Your task to perform on an android device: Go to CNN.com Image 0: 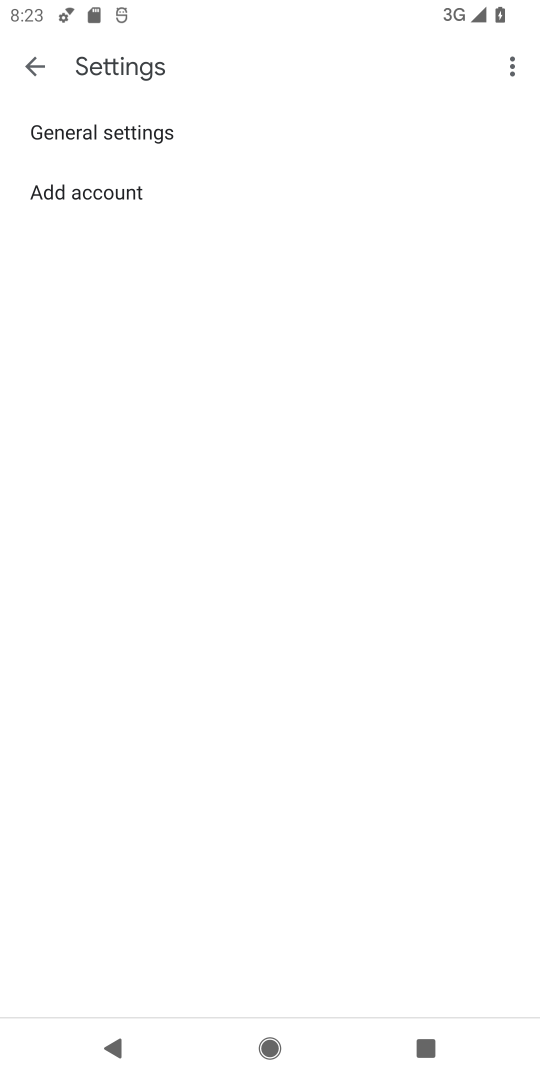
Step 0: press home button
Your task to perform on an android device: Go to CNN.com Image 1: 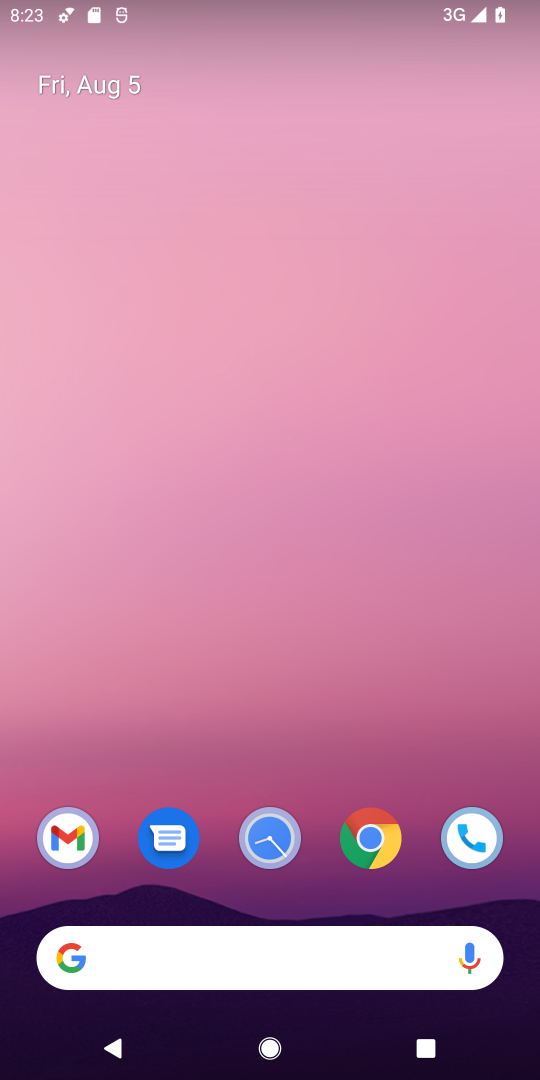
Step 1: click (350, 852)
Your task to perform on an android device: Go to CNN.com Image 2: 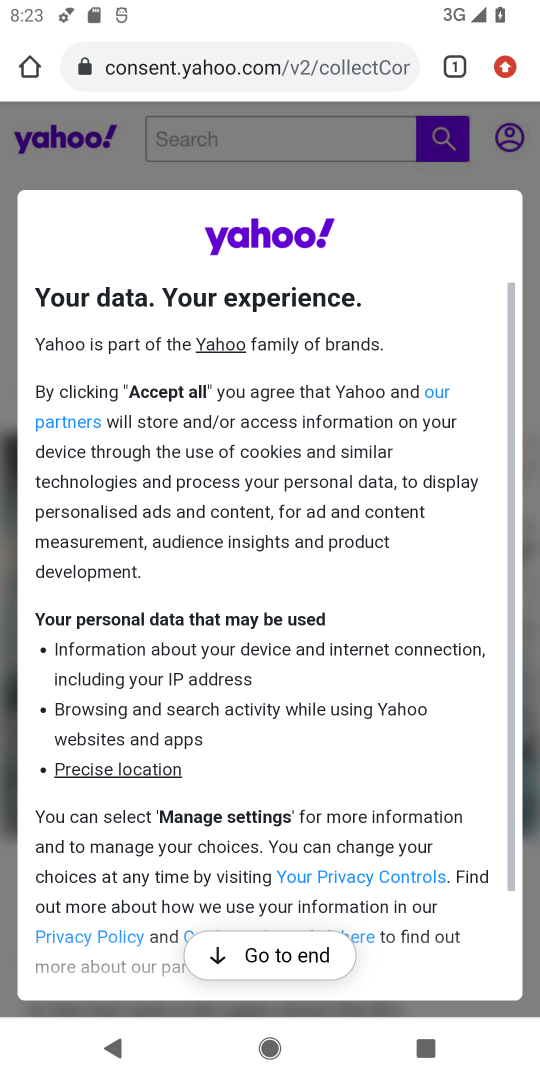
Step 2: click (446, 83)
Your task to perform on an android device: Go to CNN.com Image 3: 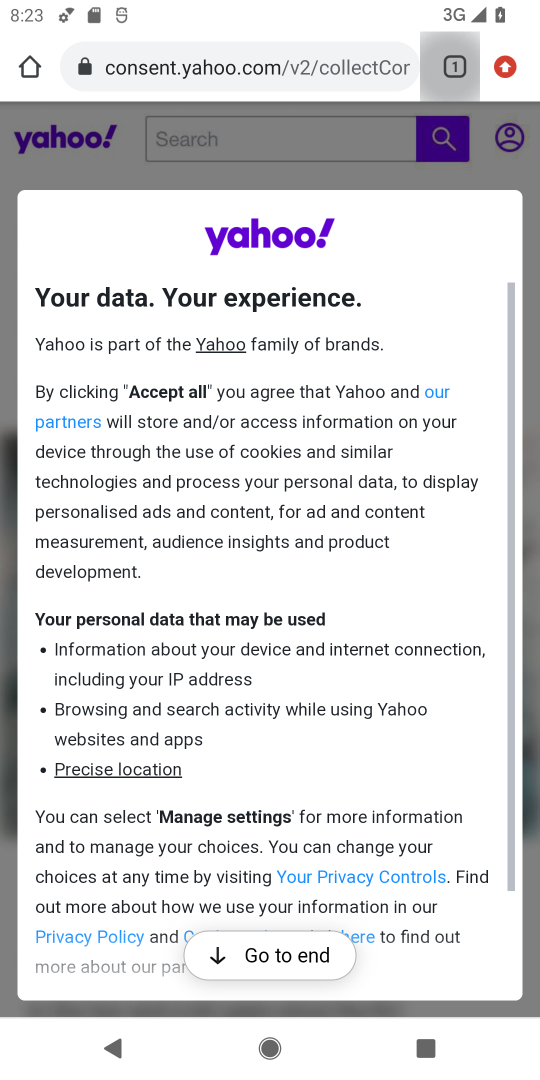
Step 3: click (446, 75)
Your task to perform on an android device: Go to CNN.com Image 4: 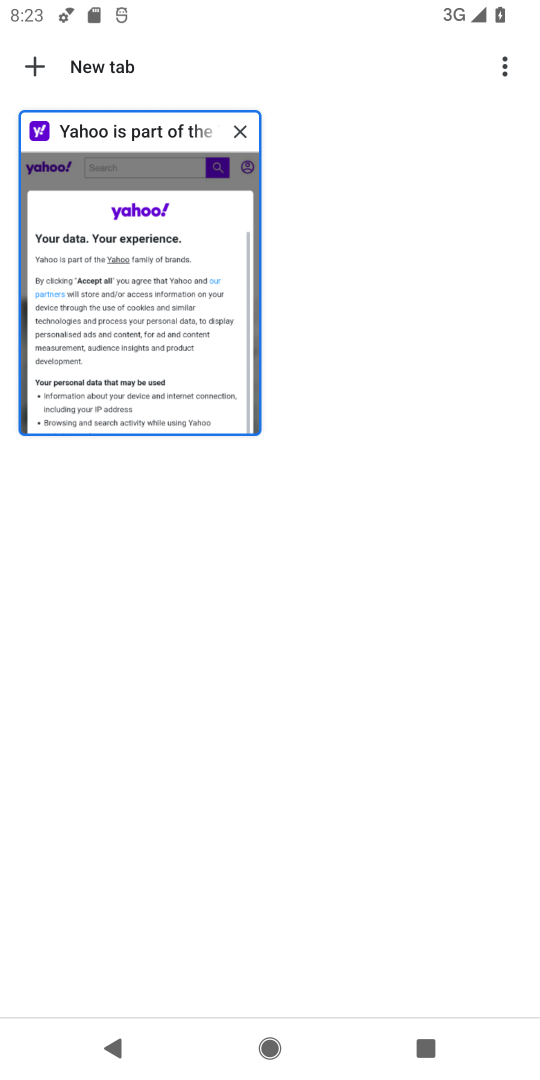
Step 4: click (38, 67)
Your task to perform on an android device: Go to CNN.com Image 5: 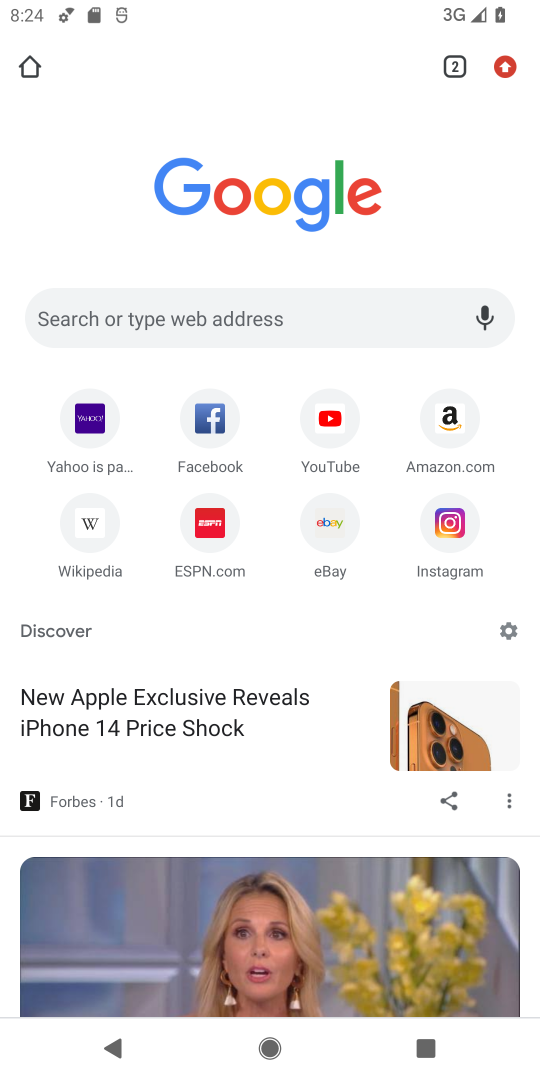
Step 5: click (254, 317)
Your task to perform on an android device: Go to CNN.com Image 6: 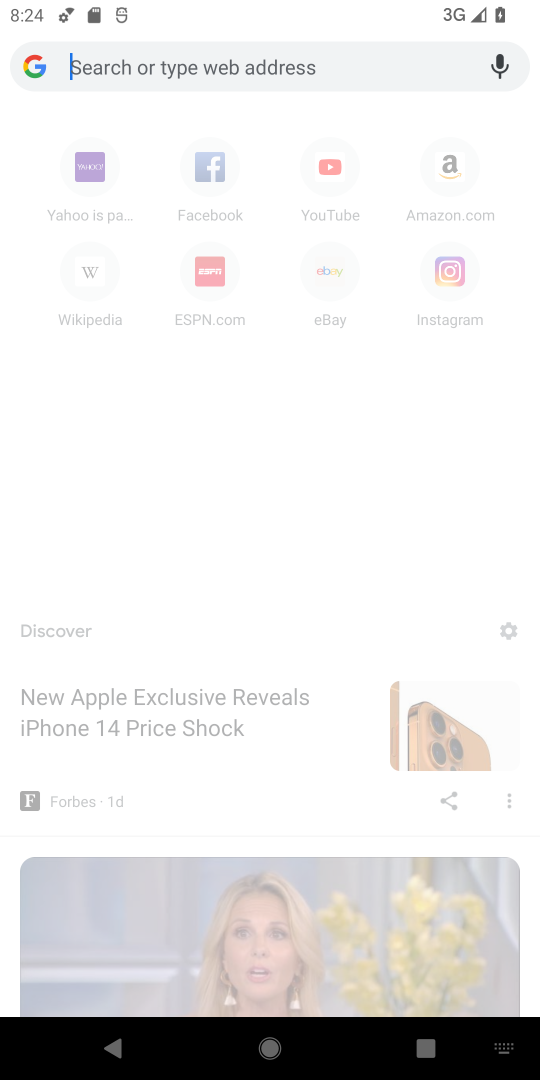
Step 6: type "cnn.com"
Your task to perform on an android device: Go to CNN.com Image 7: 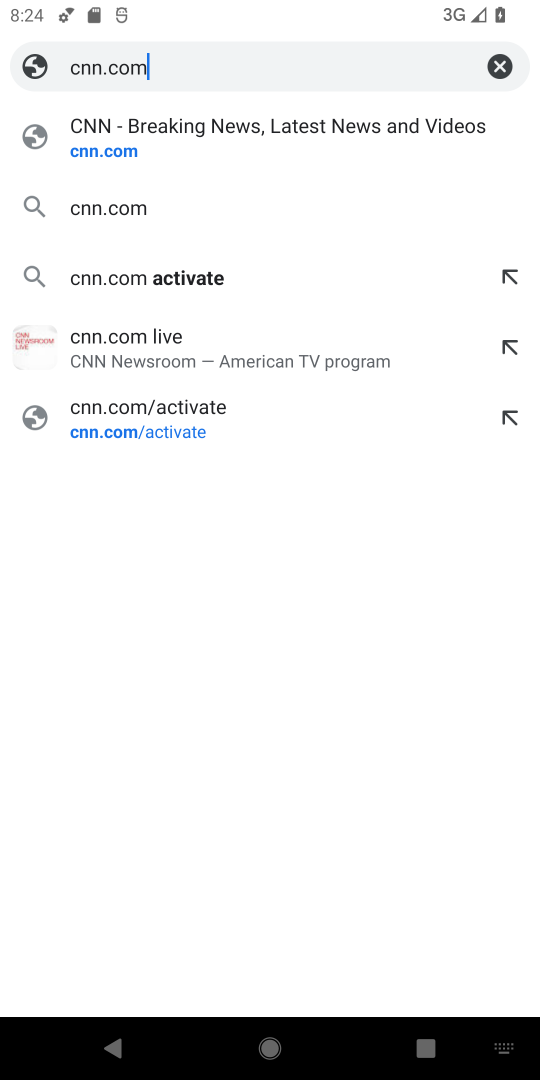
Step 7: click (160, 143)
Your task to perform on an android device: Go to CNN.com Image 8: 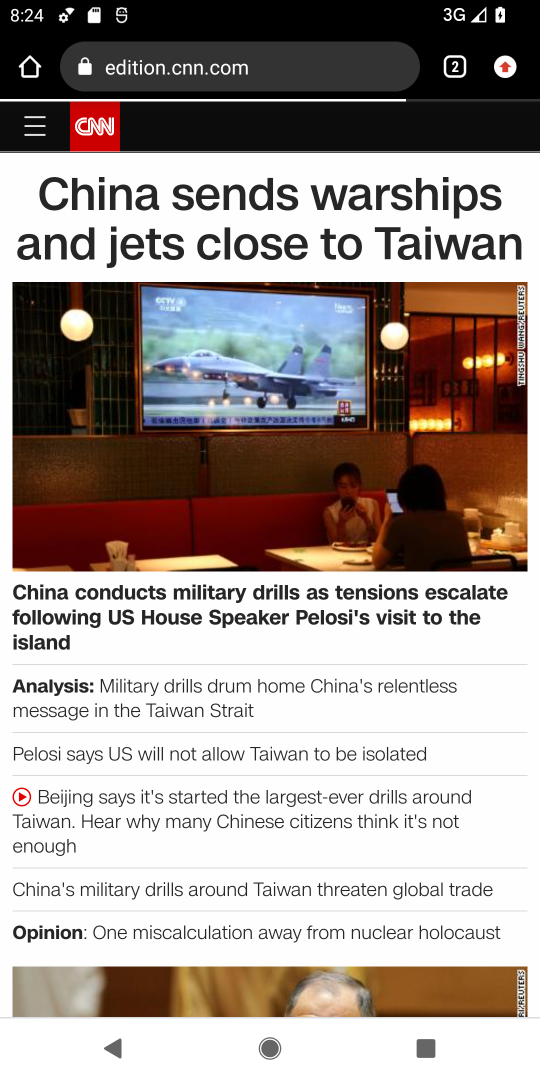
Step 8: task complete